Your task to perform on an android device: refresh tabs in the chrome app Image 0: 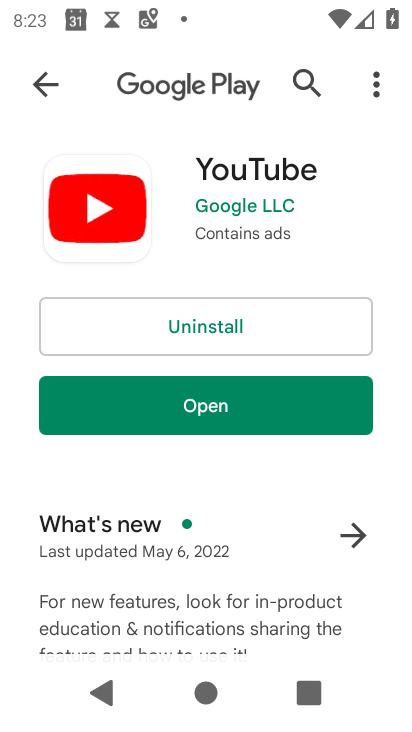
Step 0: press home button
Your task to perform on an android device: refresh tabs in the chrome app Image 1: 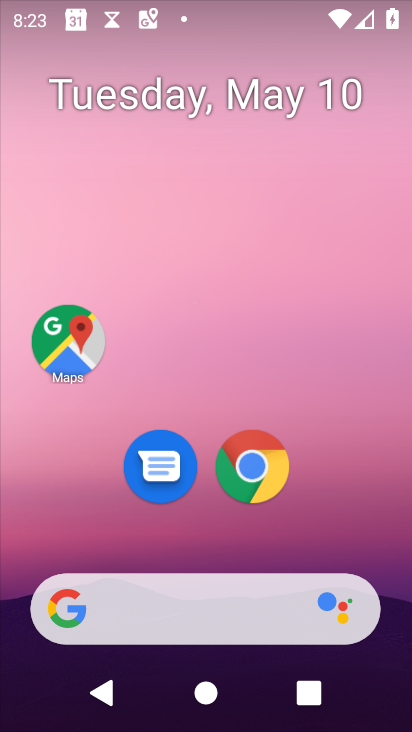
Step 1: click (254, 478)
Your task to perform on an android device: refresh tabs in the chrome app Image 2: 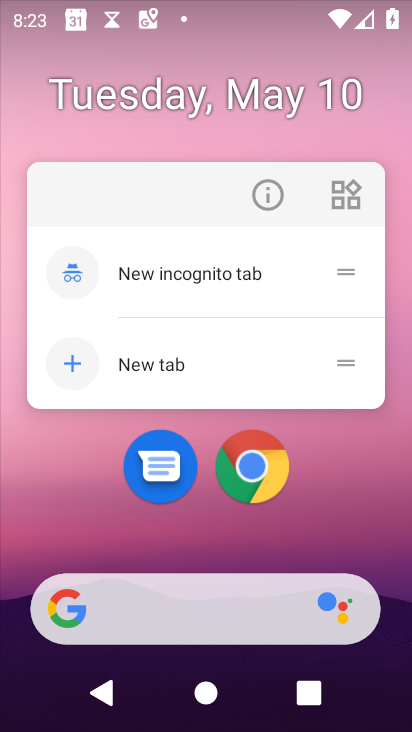
Step 2: click (254, 478)
Your task to perform on an android device: refresh tabs in the chrome app Image 3: 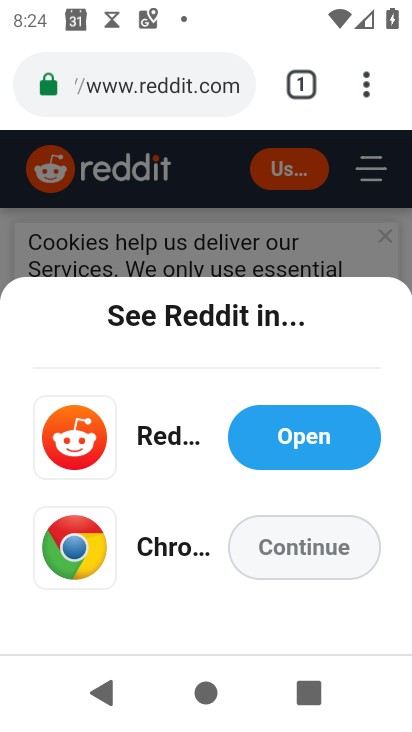
Step 3: click (361, 90)
Your task to perform on an android device: refresh tabs in the chrome app Image 4: 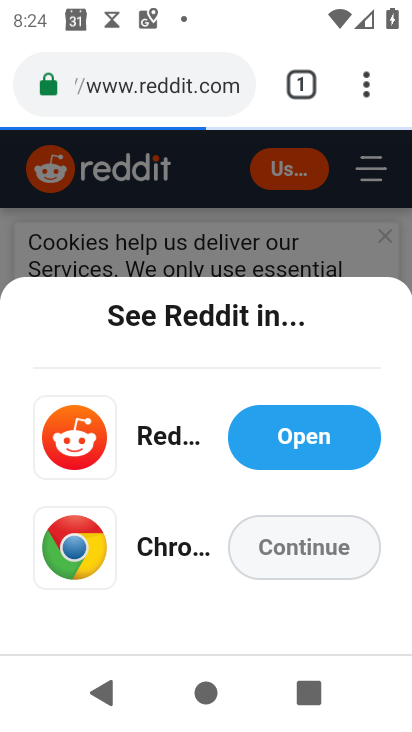
Step 4: click (359, 89)
Your task to perform on an android device: refresh tabs in the chrome app Image 5: 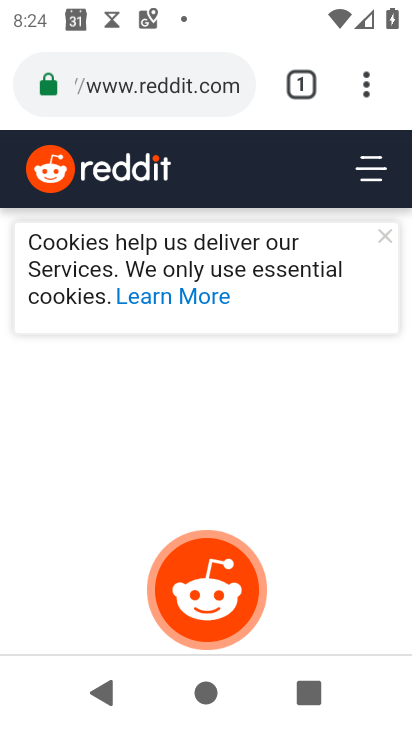
Step 5: click (345, 115)
Your task to perform on an android device: refresh tabs in the chrome app Image 6: 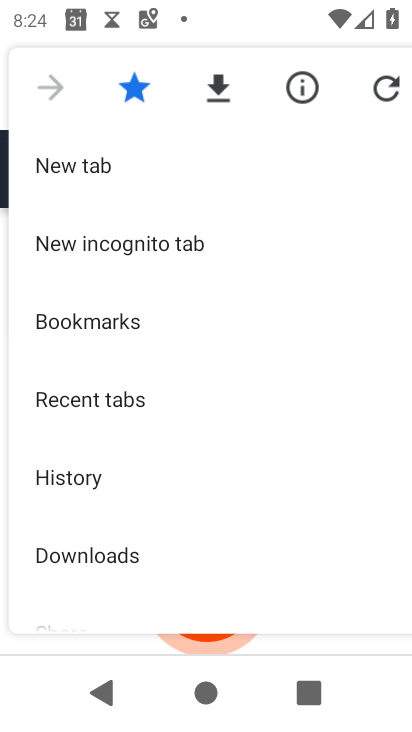
Step 6: click (371, 111)
Your task to perform on an android device: refresh tabs in the chrome app Image 7: 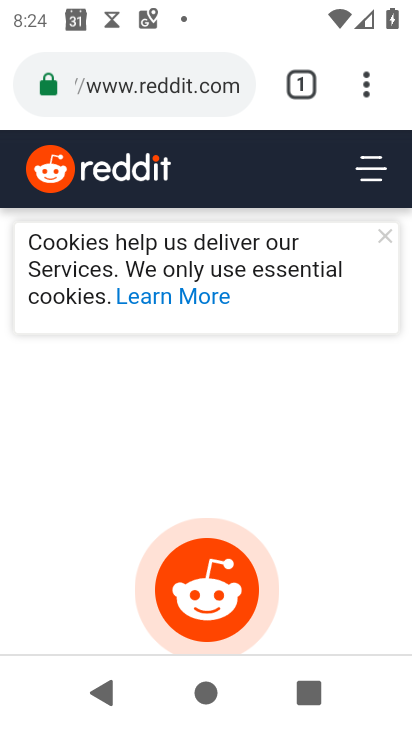
Step 7: task complete